Your task to perform on an android device: turn notification dots off Image 0: 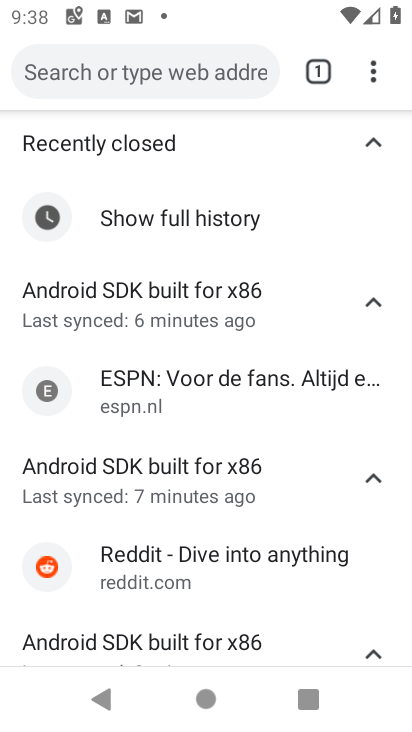
Step 0: press home button
Your task to perform on an android device: turn notification dots off Image 1: 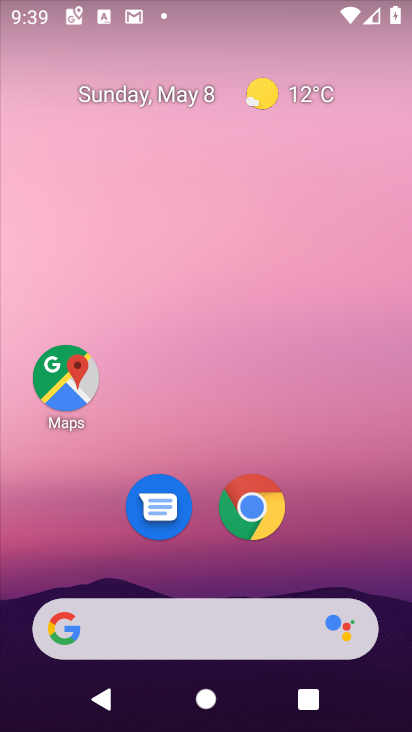
Step 1: drag from (284, 678) to (317, 180)
Your task to perform on an android device: turn notification dots off Image 2: 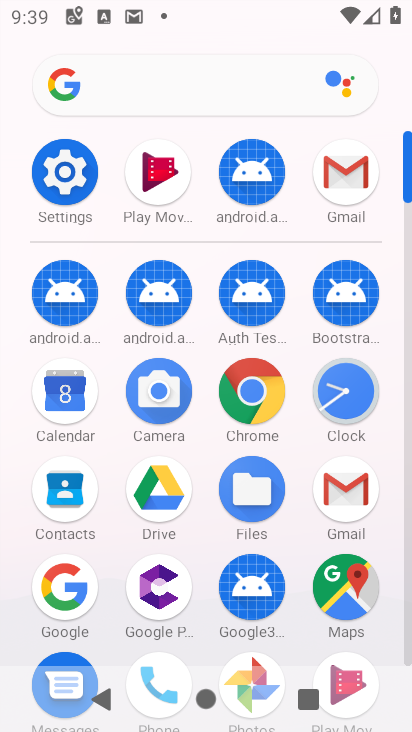
Step 2: click (65, 180)
Your task to perform on an android device: turn notification dots off Image 3: 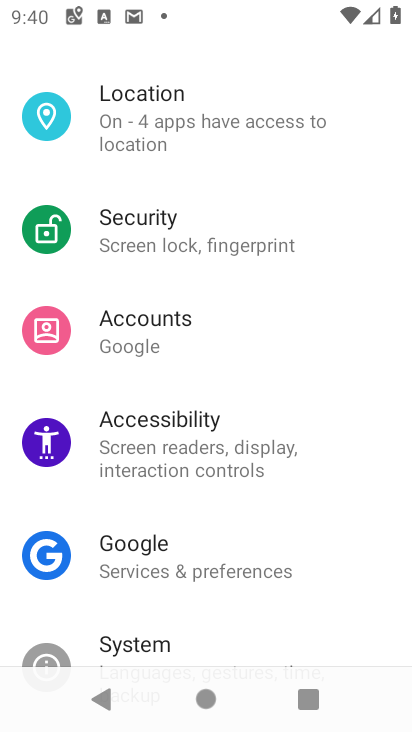
Step 3: drag from (250, 614) to (199, 68)
Your task to perform on an android device: turn notification dots off Image 4: 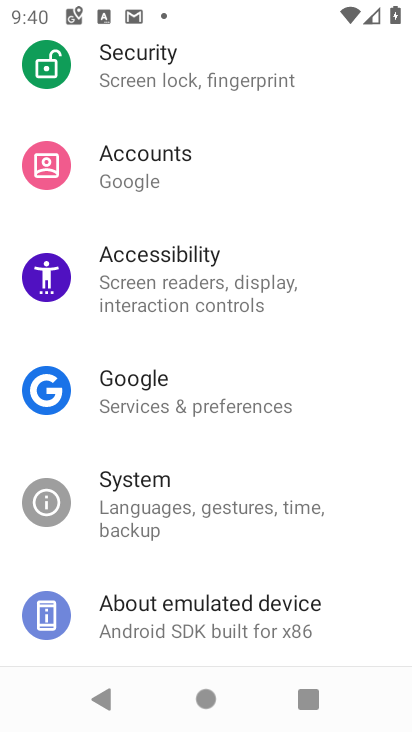
Step 4: drag from (256, 118) to (192, 698)
Your task to perform on an android device: turn notification dots off Image 5: 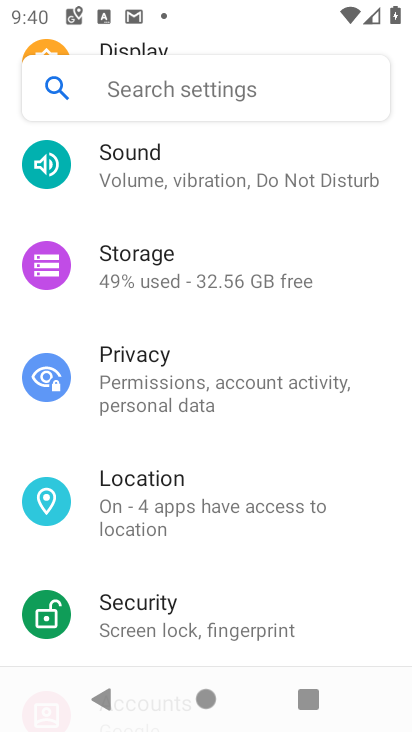
Step 5: drag from (346, 159) to (266, 700)
Your task to perform on an android device: turn notification dots off Image 6: 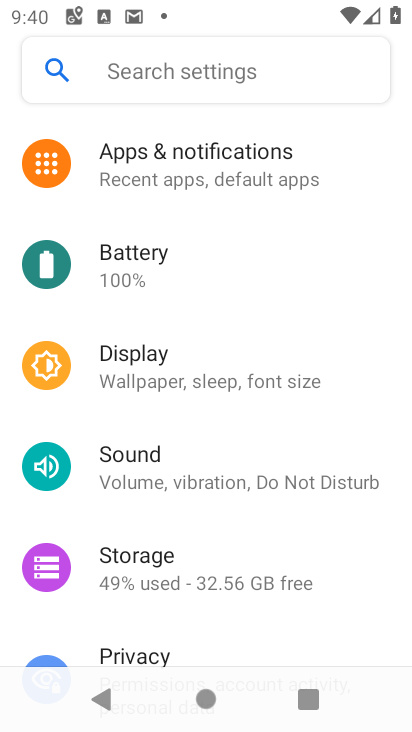
Step 6: click (283, 183)
Your task to perform on an android device: turn notification dots off Image 7: 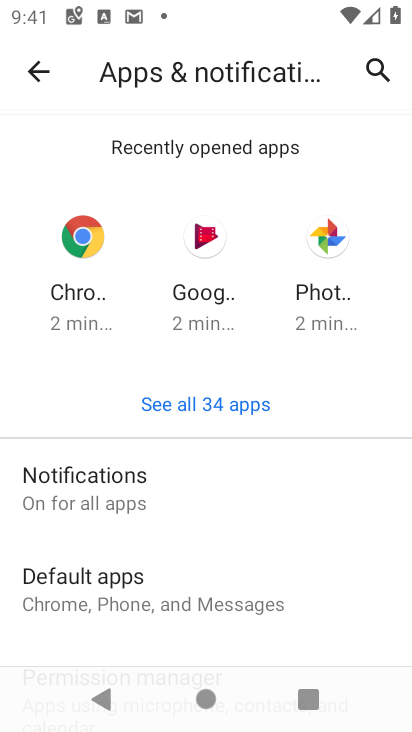
Step 7: click (94, 490)
Your task to perform on an android device: turn notification dots off Image 8: 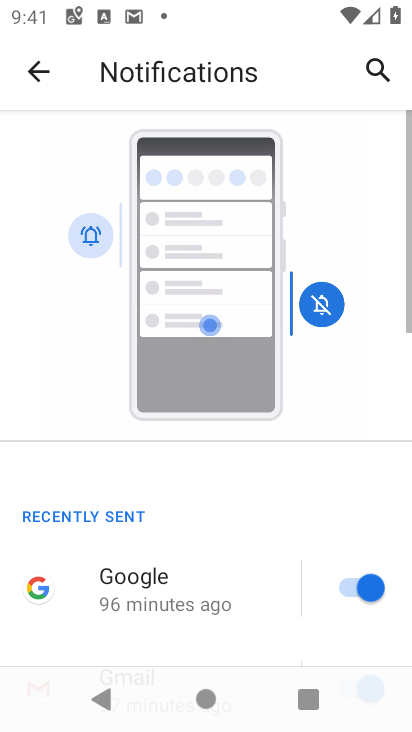
Step 8: drag from (278, 474) to (180, 0)
Your task to perform on an android device: turn notification dots off Image 9: 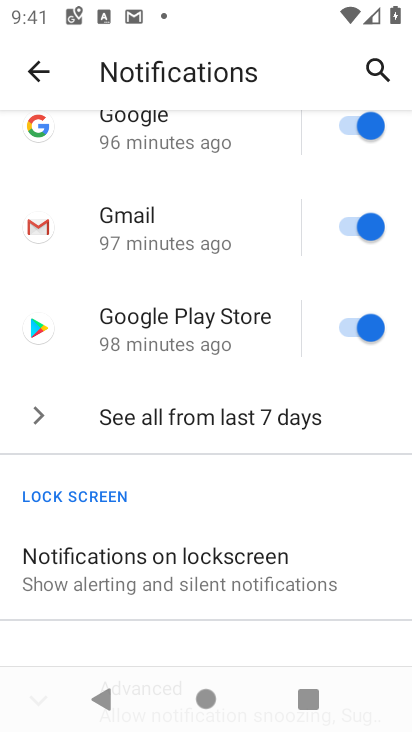
Step 9: drag from (258, 590) to (154, 103)
Your task to perform on an android device: turn notification dots off Image 10: 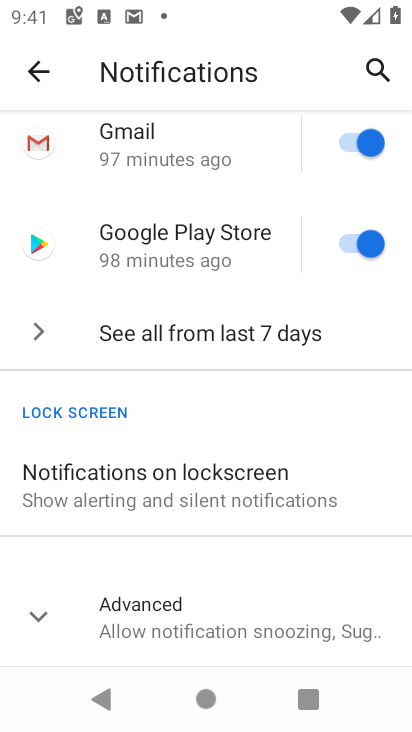
Step 10: click (252, 624)
Your task to perform on an android device: turn notification dots off Image 11: 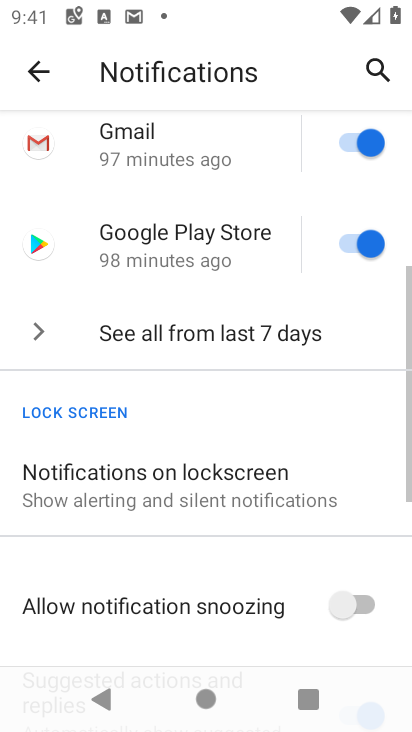
Step 11: task complete